Your task to perform on an android device: turn on the 24-hour format for clock Image 0: 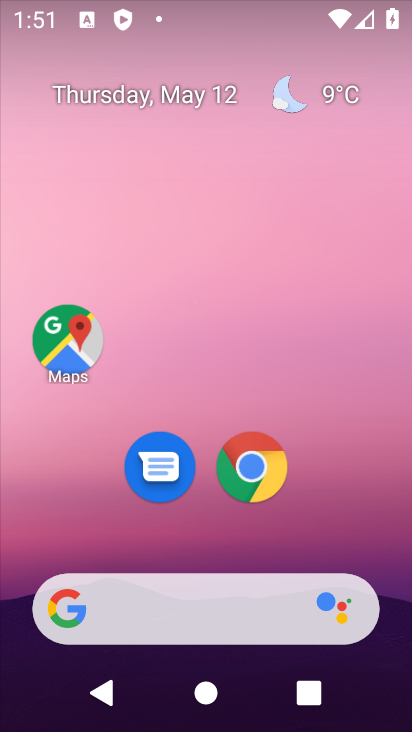
Step 0: drag from (314, 507) to (320, 257)
Your task to perform on an android device: turn on the 24-hour format for clock Image 1: 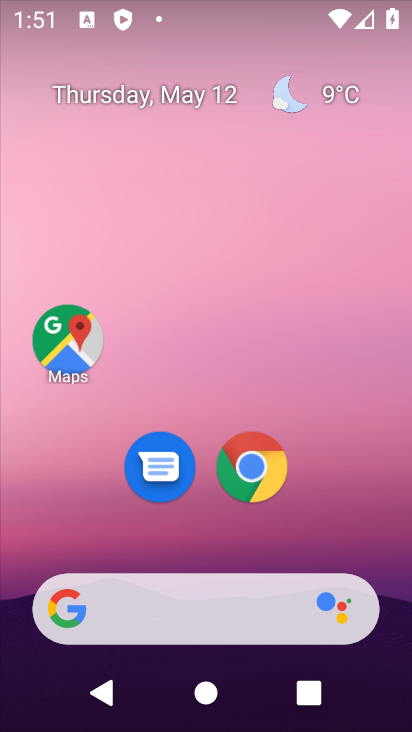
Step 1: drag from (314, 527) to (342, 172)
Your task to perform on an android device: turn on the 24-hour format for clock Image 2: 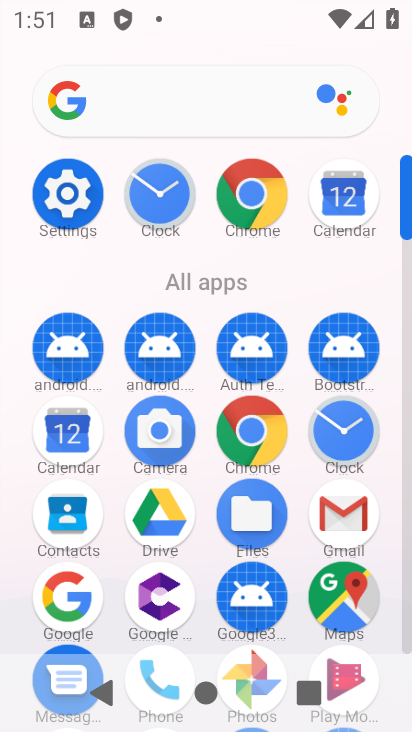
Step 2: click (354, 433)
Your task to perform on an android device: turn on the 24-hour format for clock Image 3: 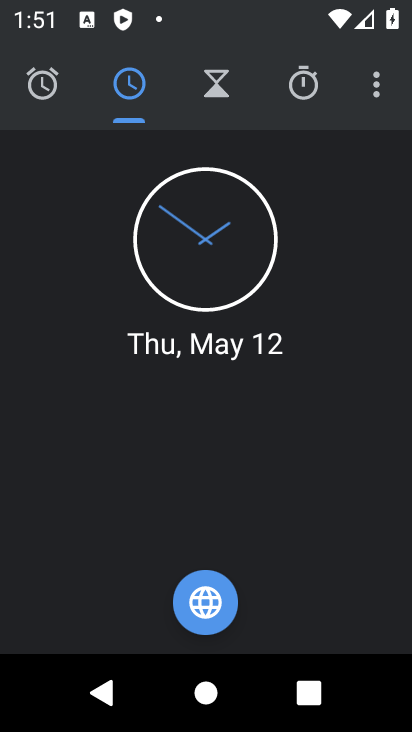
Step 3: click (350, 97)
Your task to perform on an android device: turn on the 24-hour format for clock Image 4: 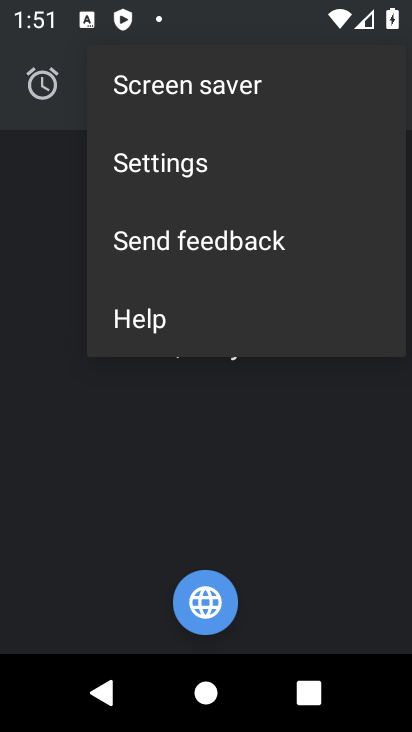
Step 4: click (243, 169)
Your task to perform on an android device: turn on the 24-hour format for clock Image 5: 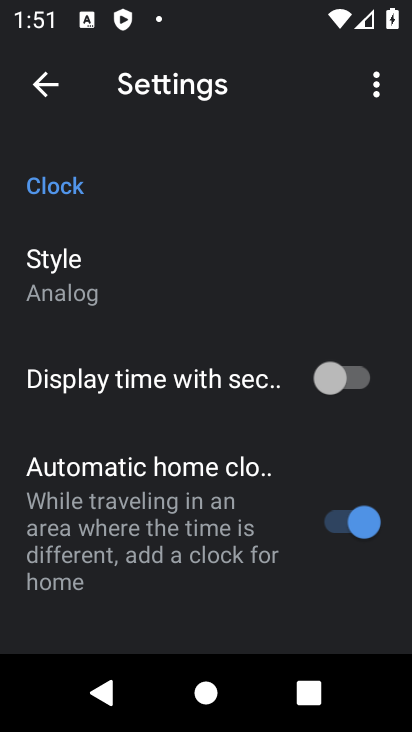
Step 5: drag from (216, 535) to (317, 173)
Your task to perform on an android device: turn on the 24-hour format for clock Image 6: 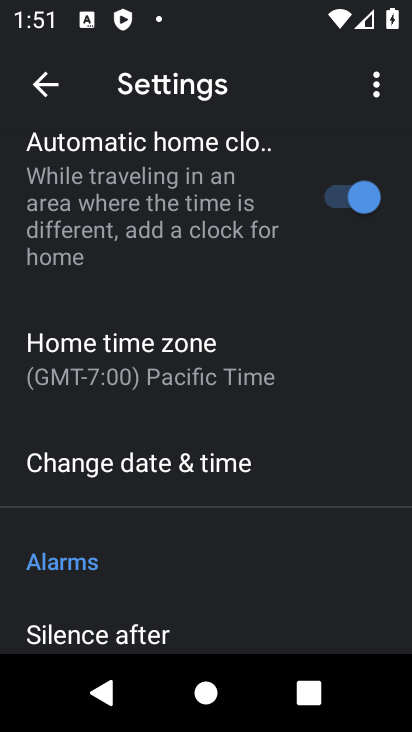
Step 6: click (183, 454)
Your task to perform on an android device: turn on the 24-hour format for clock Image 7: 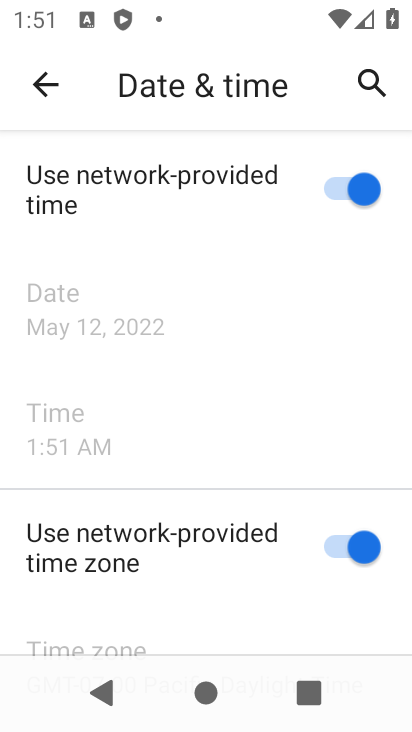
Step 7: drag from (272, 604) to (256, 357)
Your task to perform on an android device: turn on the 24-hour format for clock Image 8: 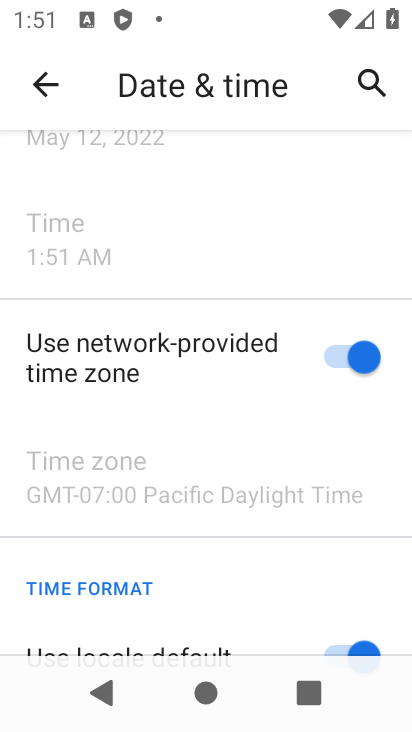
Step 8: drag from (225, 508) to (244, 267)
Your task to perform on an android device: turn on the 24-hour format for clock Image 9: 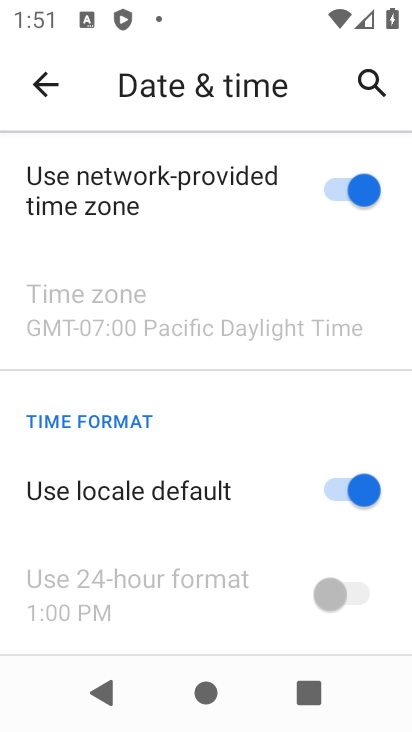
Step 9: click (340, 477)
Your task to perform on an android device: turn on the 24-hour format for clock Image 10: 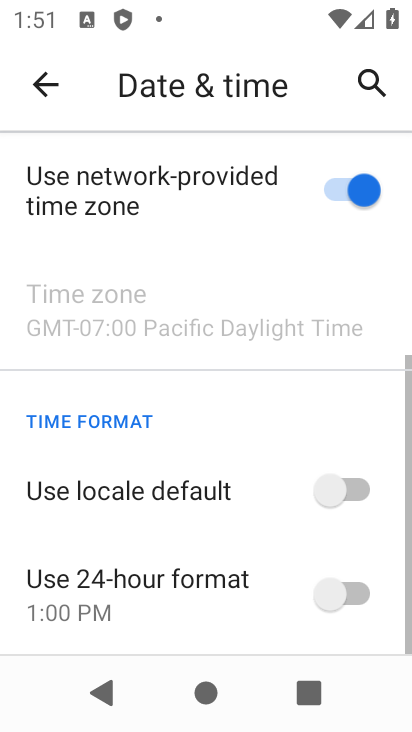
Step 10: click (356, 584)
Your task to perform on an android device: turn on the 24-hour format for clock Image 11: 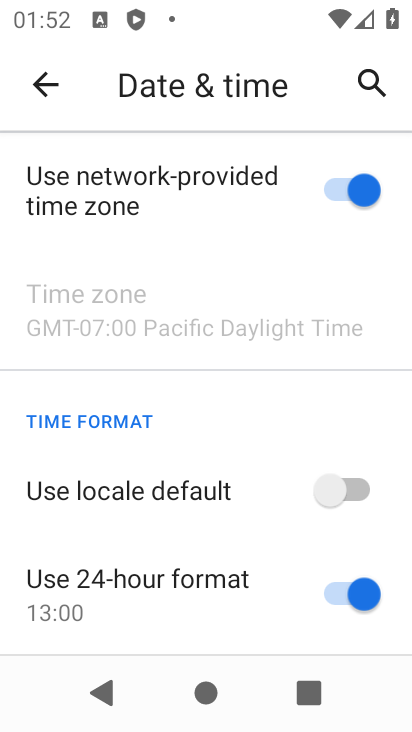
Step 11: task complete